Your task to perform on an android device: open app "ColorNote Notepad Notes" (install if not already installed), go to login, and select forgot password Image 0: 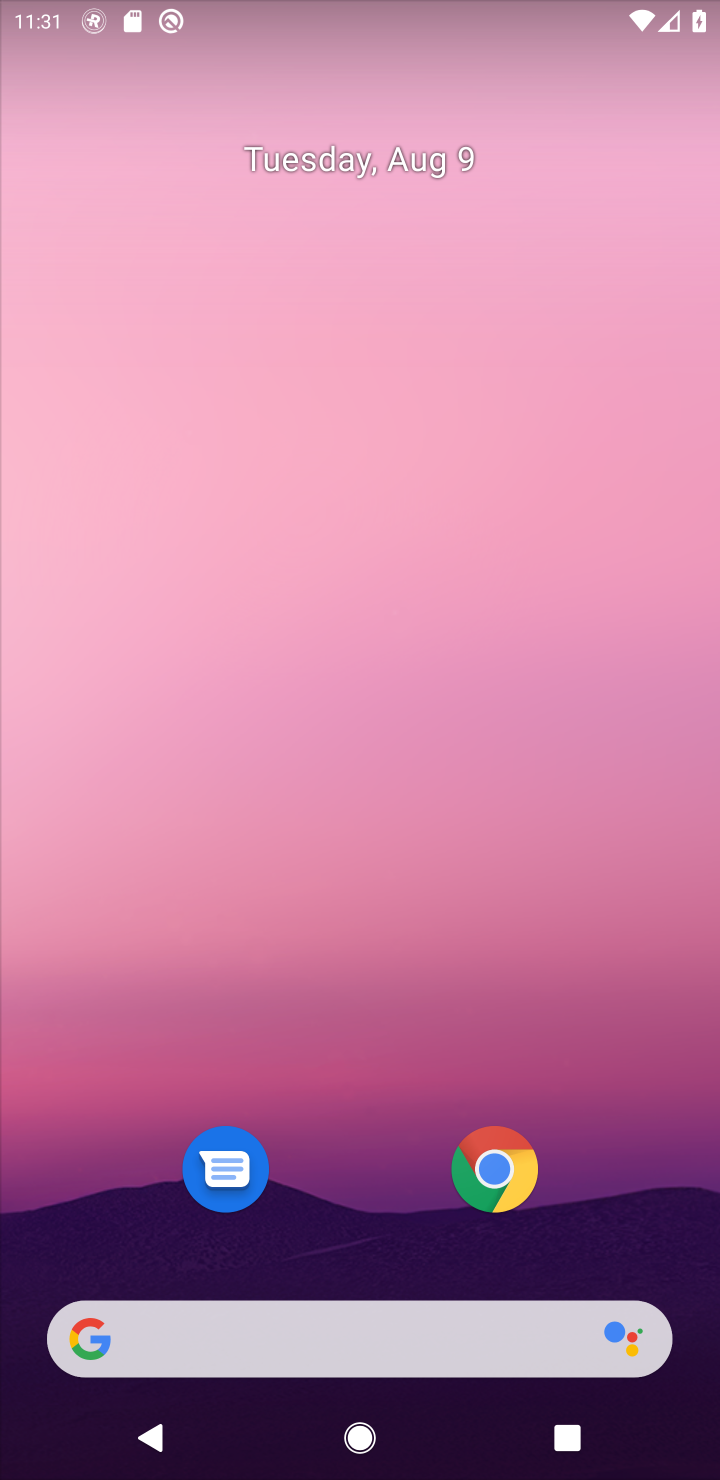
Step 0: press home button
Your task to perform on an android device: open app "ColorNote Notepad Notes" (install if not already installed), go to login, and select forgot password Image 1: 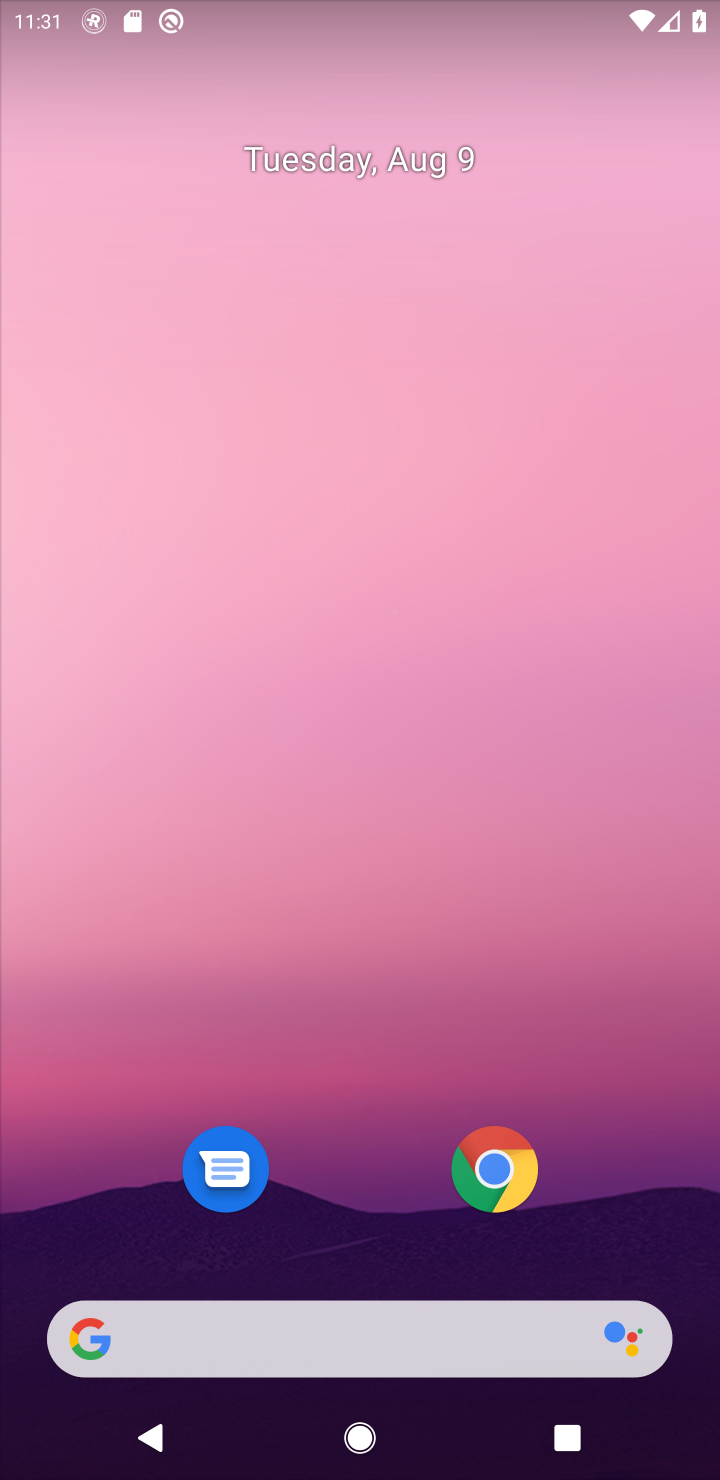
Step 1: press home button
Your task to perform on an android device: open app "ColorNote Notepad Notes" (install if not already installed), go to login, and select forgot password Image 2: 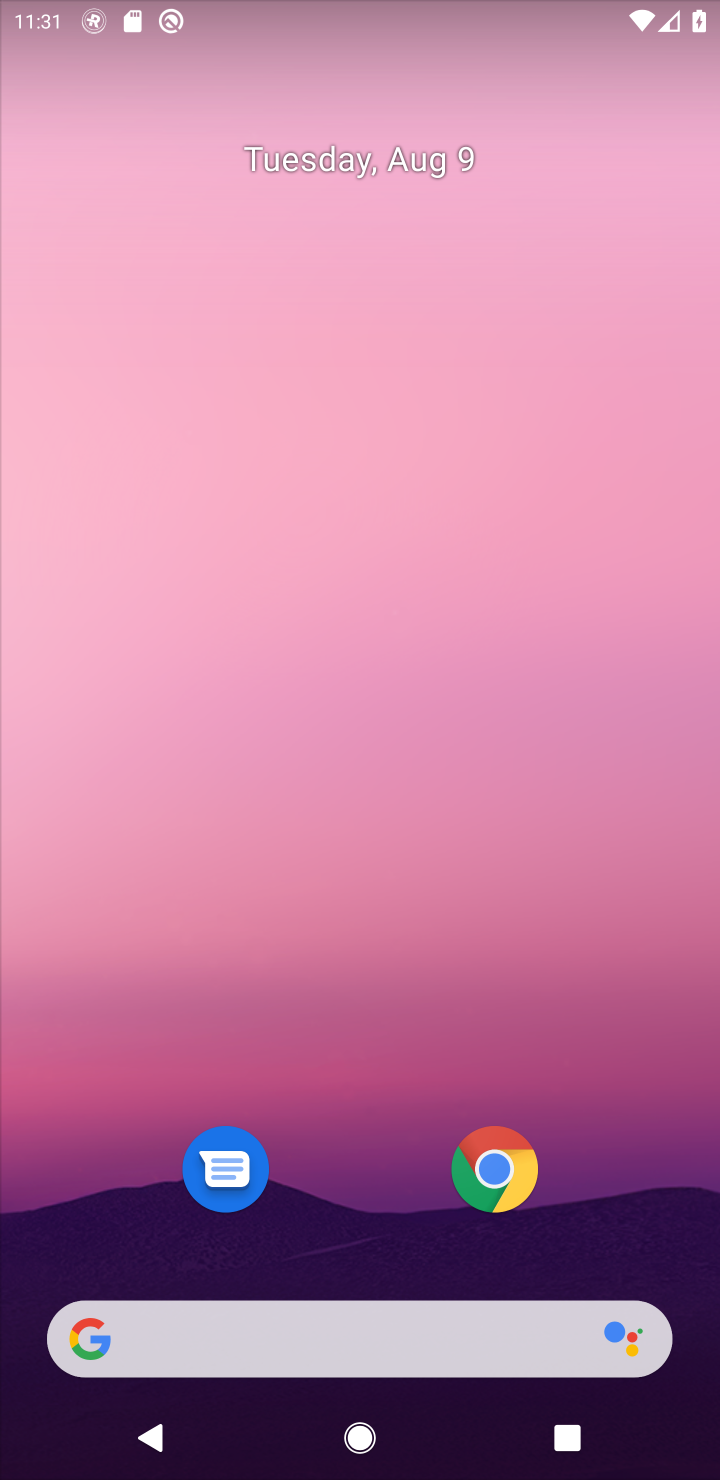
Step 2: drag from (602, 1192) to (623, 91)
Your task to perform on an android device: open app "ColorNote Notepad Notes" (install if not already installed), go to login, and select forgot password Image 3: 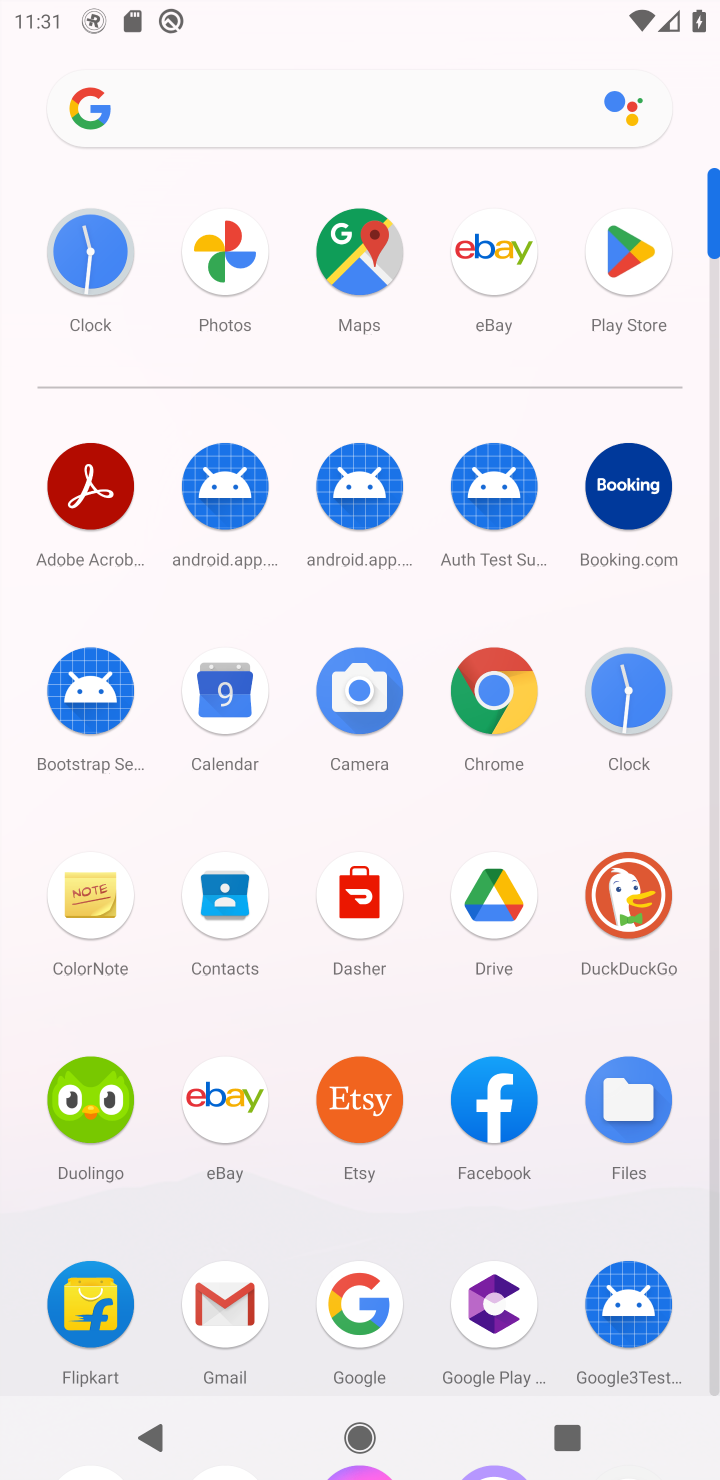
Step 3: click (624, 244)
Your task to perform on an android device: open app "ColorNote Notepad Notes" (install if not already installed), go to login, and select forgot password Image 4: 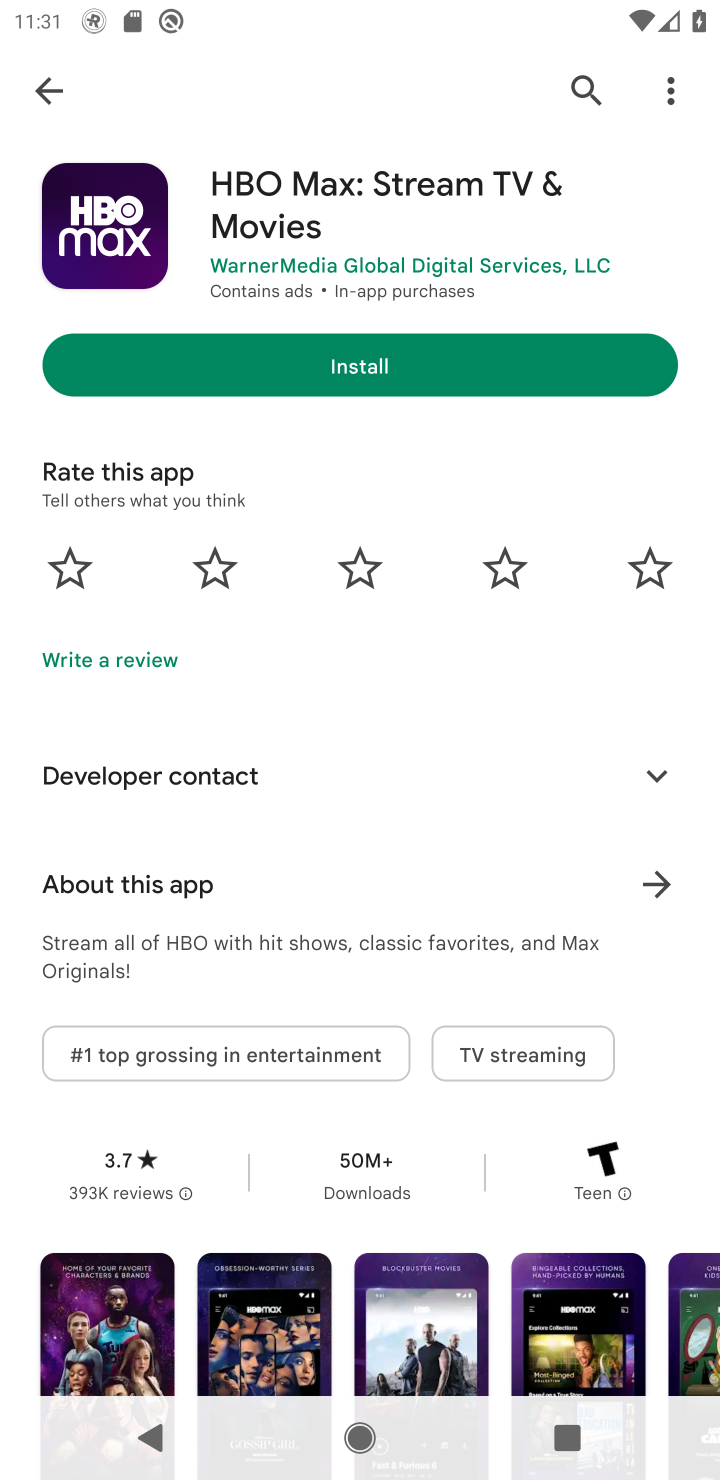
Step 4: click (577, 90)
Your task to perform on an android device: open app "ColorNote Notepad Notes" (install if not already installed), go to login, and select forgot password Image 5: 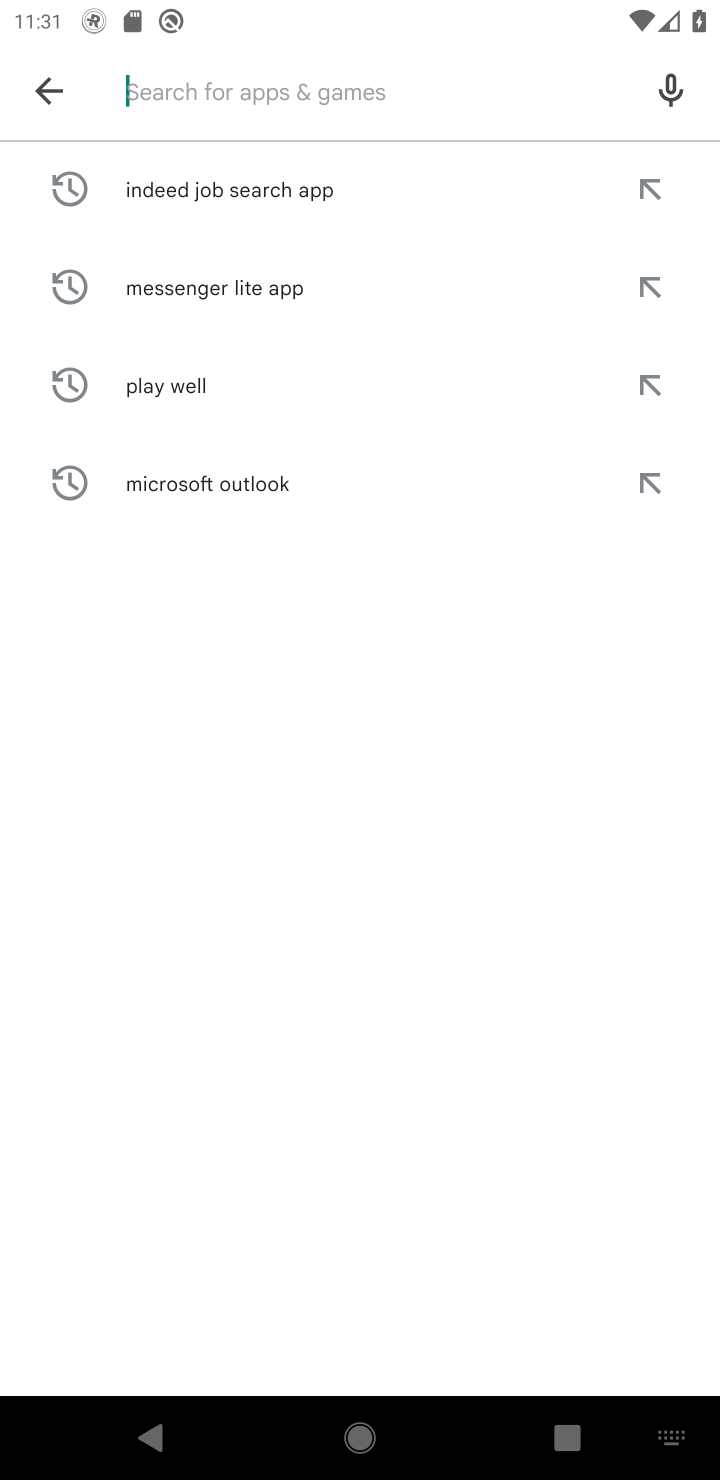
Step 5: type "ColorNote Notepad Notes"
Your task to perform on an android device: open app "ColorNote Notepad Notes" (install if not already installed), go to login, and select forgot password Image 6: 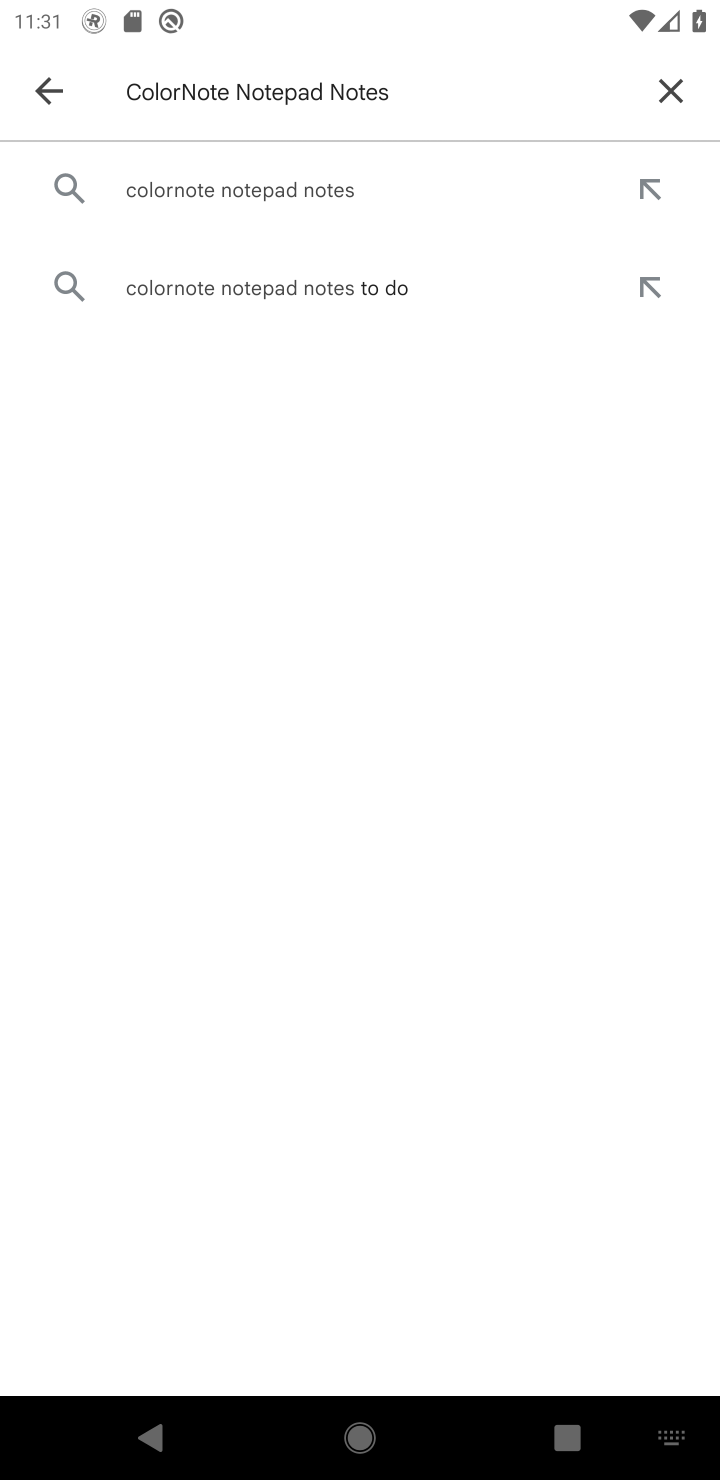
Step 6: click (318, 175)
Your task to perform on an android device: open app "ColorNote Notepad Notes" (install if not already installed), go to login, and select forgot password Image 7: 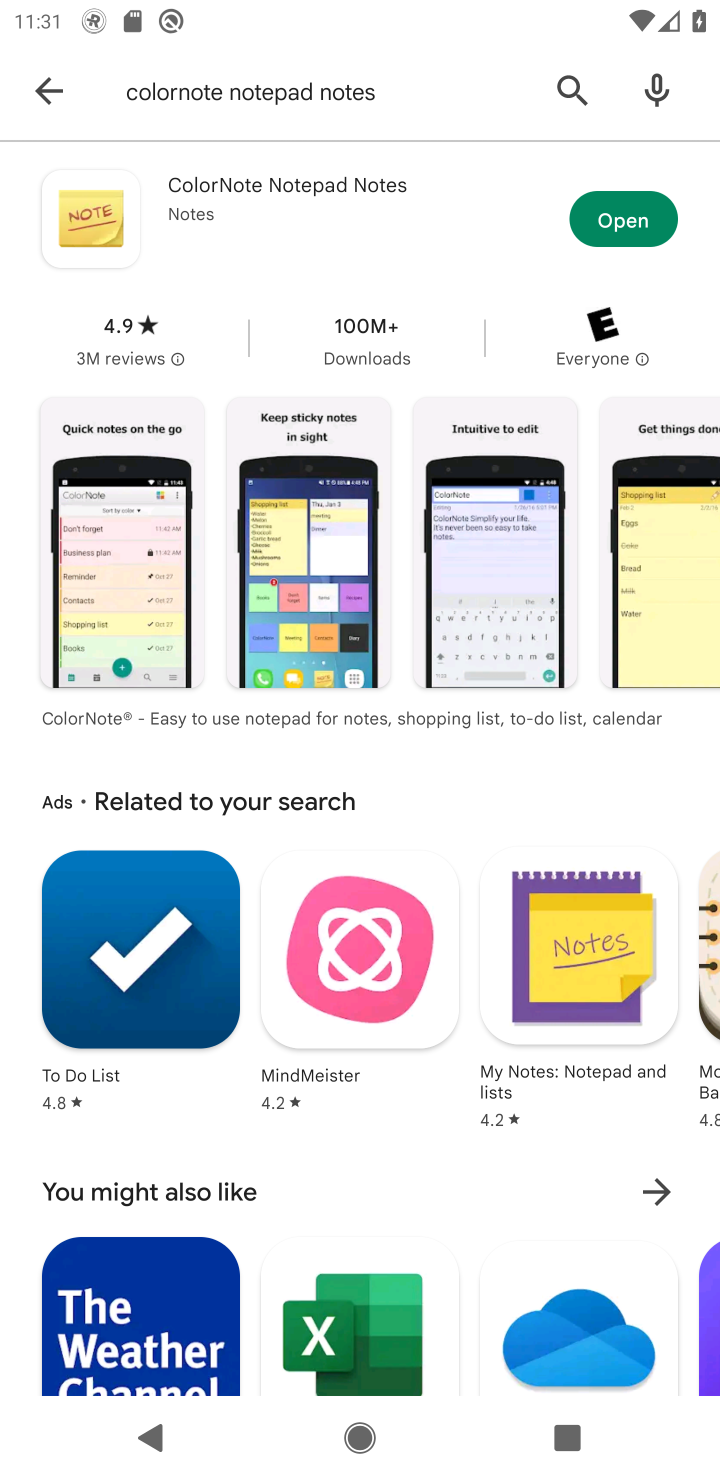
Step 7: click (630, 221)
Your task to perform on an android device: open app "ColorNote Notepad Notes" (install if not already installed), go to login, and select forgot password Image 8: 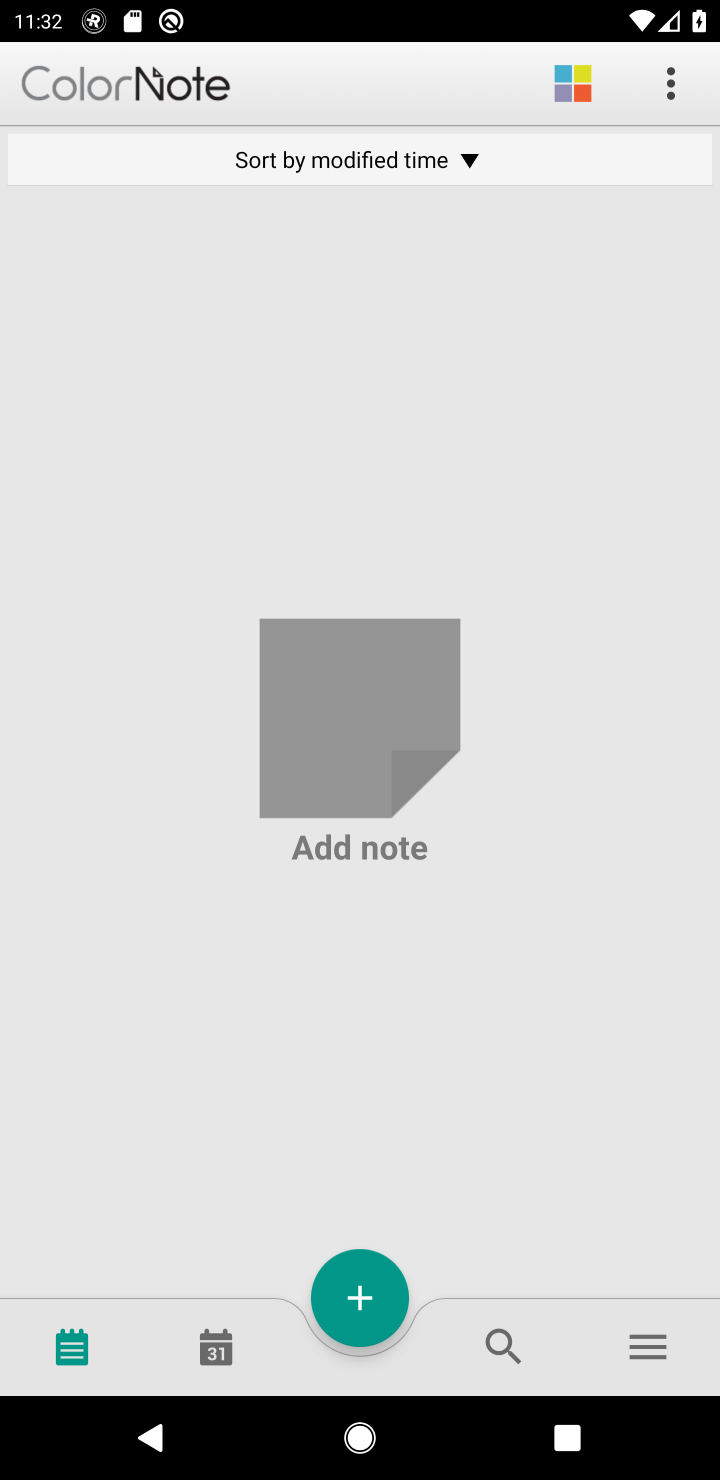
Step 8: click (671, 88)
Your task to perform on an android device: open app "ColorNote Notepad Notes" (install if not already installed), go to login, and select forgot password Image 9: 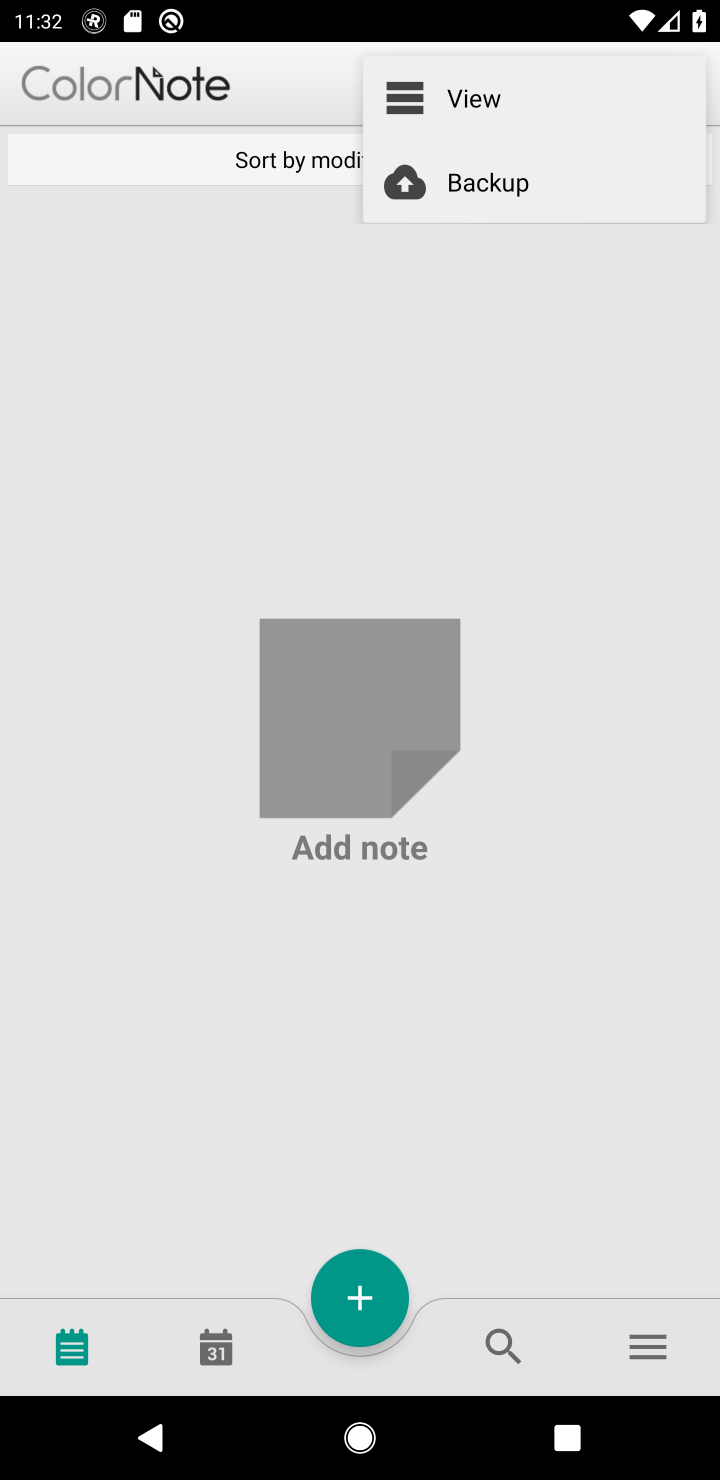
Step 9: click (563, 479)
Your task to perform on an android device: open app "ColorNote Notepad Notes" (install if not already installed), go to login, and select forgot password Image 10: 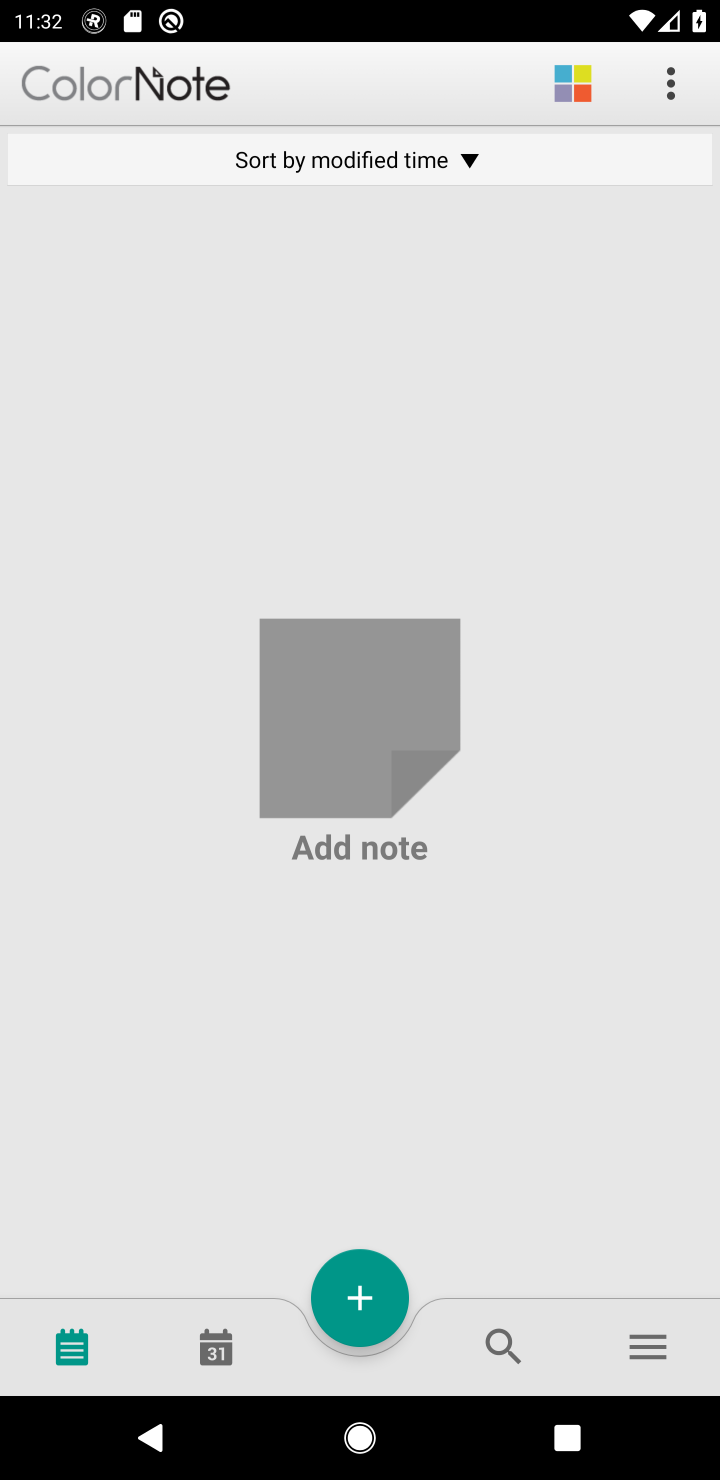
Step 10: click (657, 1358)
Your task to perform on an android device: open app "ColorNote Notepad Notes" (install if not already installed), go to login, and select forgot password Image 11: 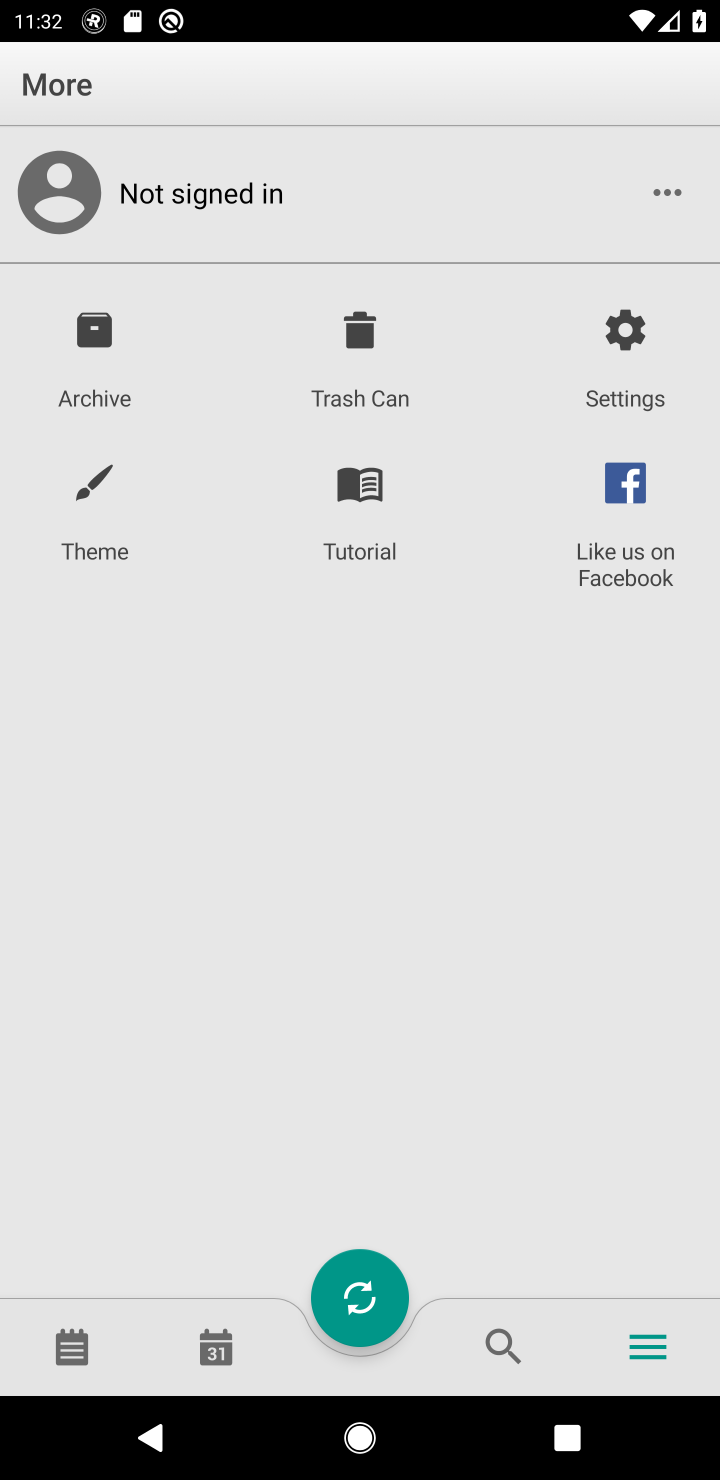
Step 11: click (673, 196)
Your task to perform on an android device: open app "ColorNote Notepad Notes" (install if not already installed), go to login, and select forgot password Image 12: 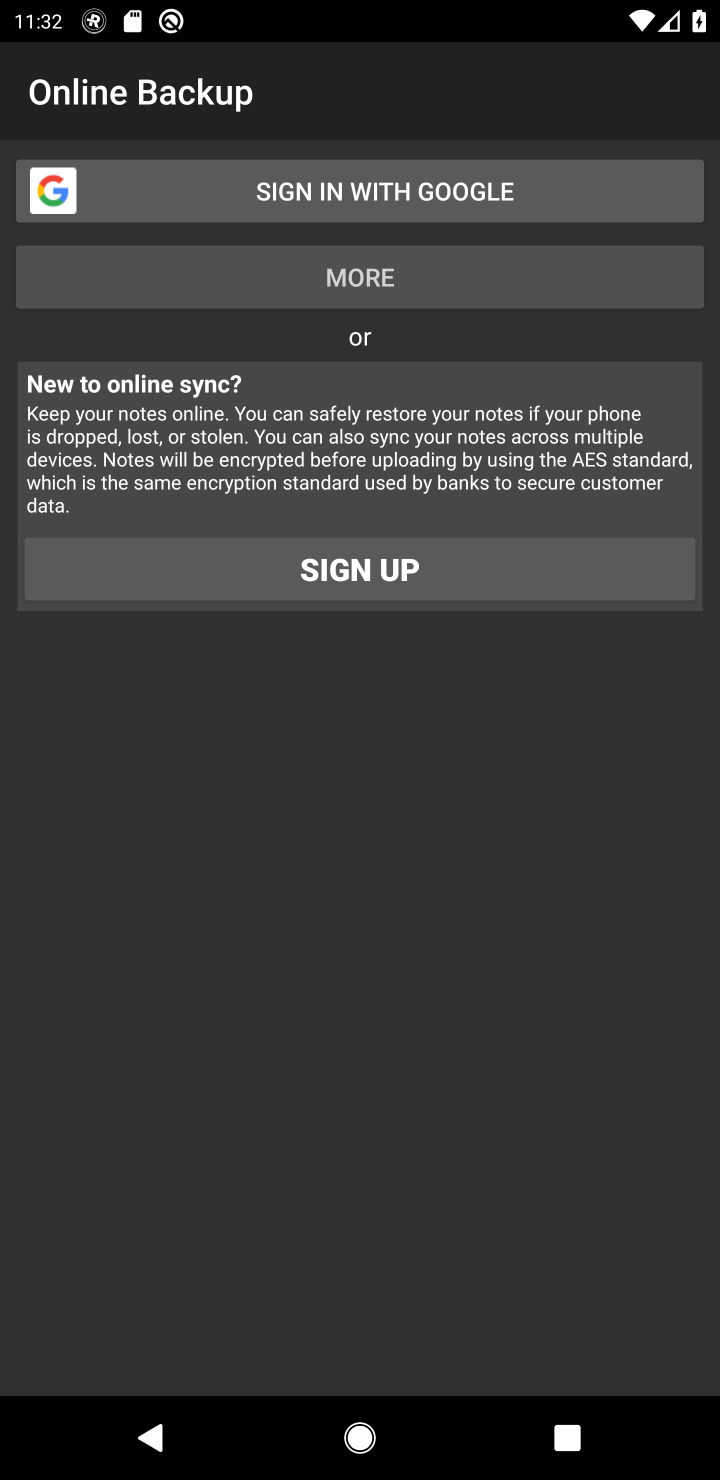
Step 12: click (409, 196)
Your task to perform on an android device: open app "ColorNote Notepad Notes" (install if not already installed), go to login, and select forgot password Image 13: 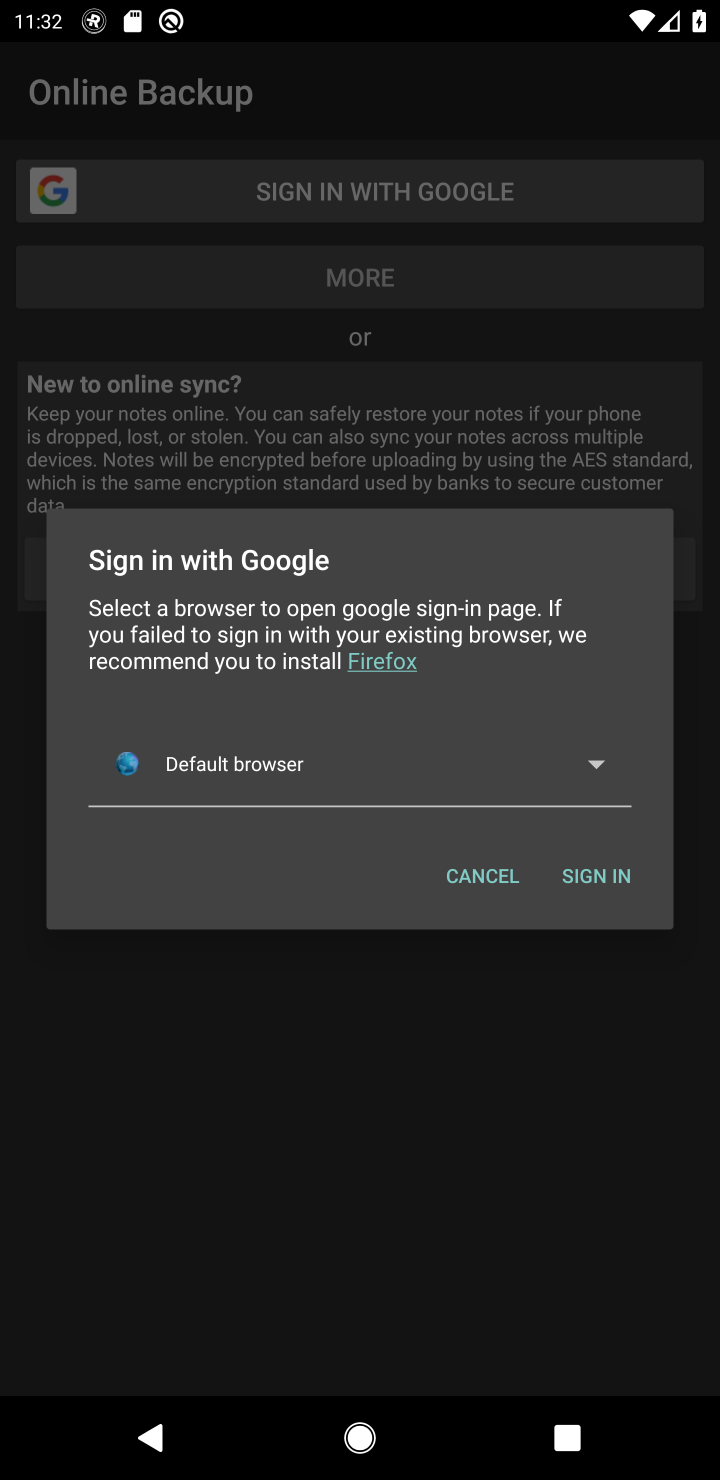
Step 13: click (607, 864)
Your task to perform on an android device: open app "ColorNote Notepad Notes" (install if not already installed), go to login, and select forgot password Image 14: 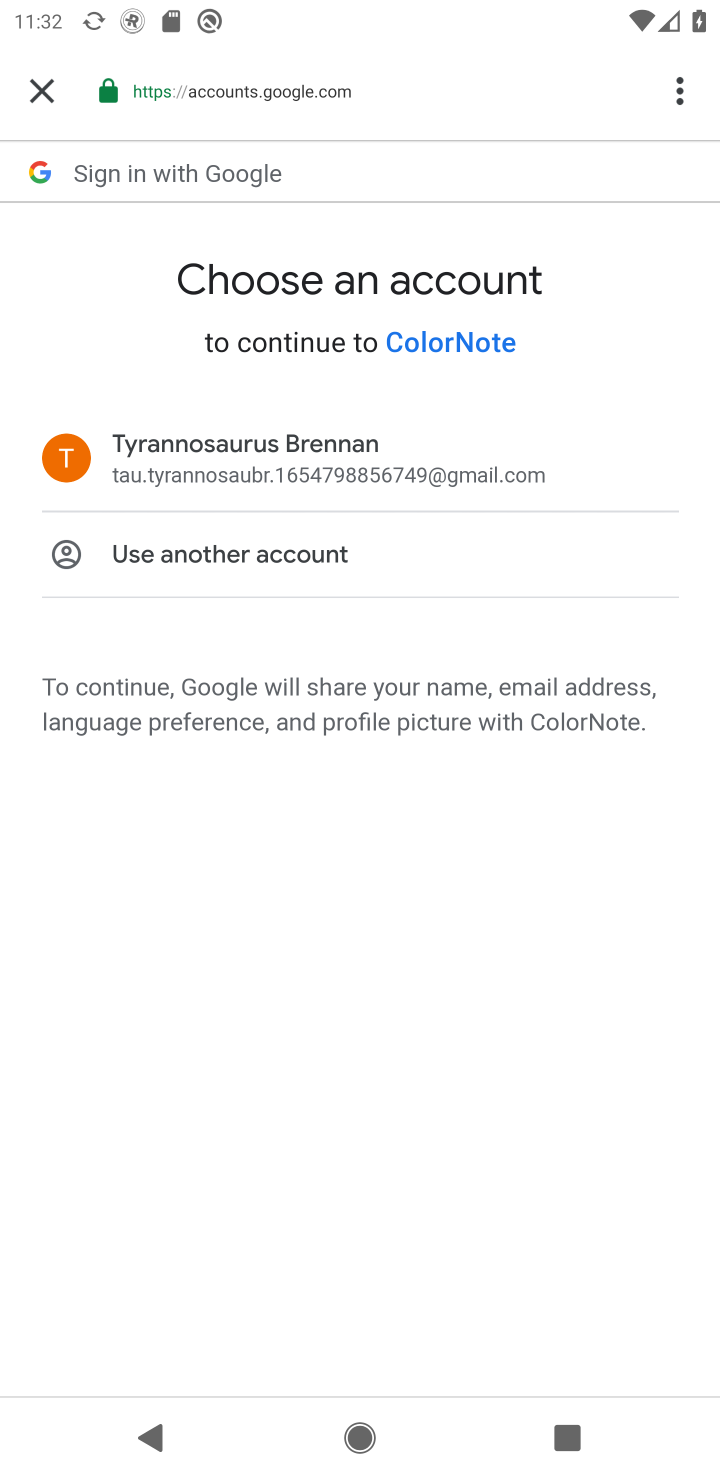
Step 14: click (405, 542)
Your task to perform on an android device: open app "ColorNote Notepad Notes" (install if not already installed), go to login, and select forgot password Image 15: 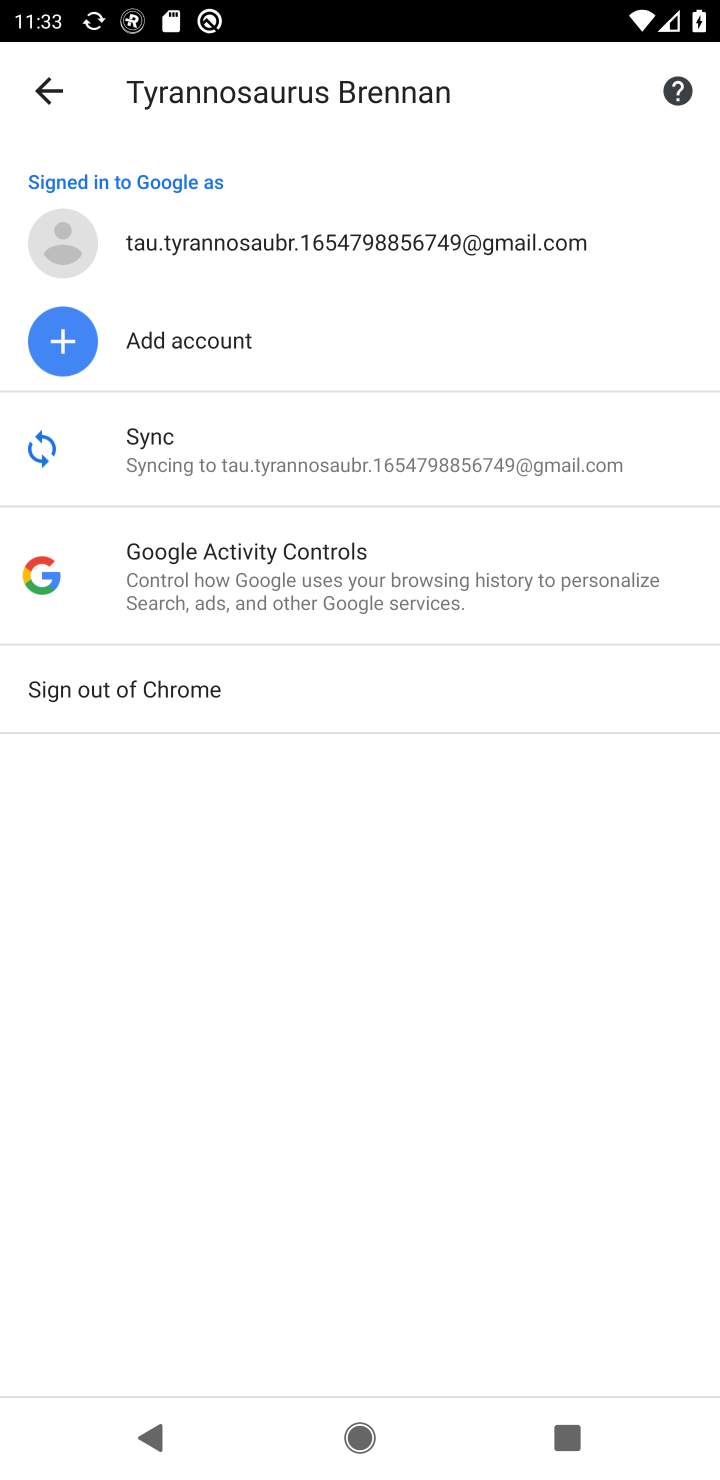
Step 15: click (190, 340)
Your task to perform on an android device: open app "ColorNote Notepad Notes" (install if not already installed), go to login, and select forgot password Image 16: 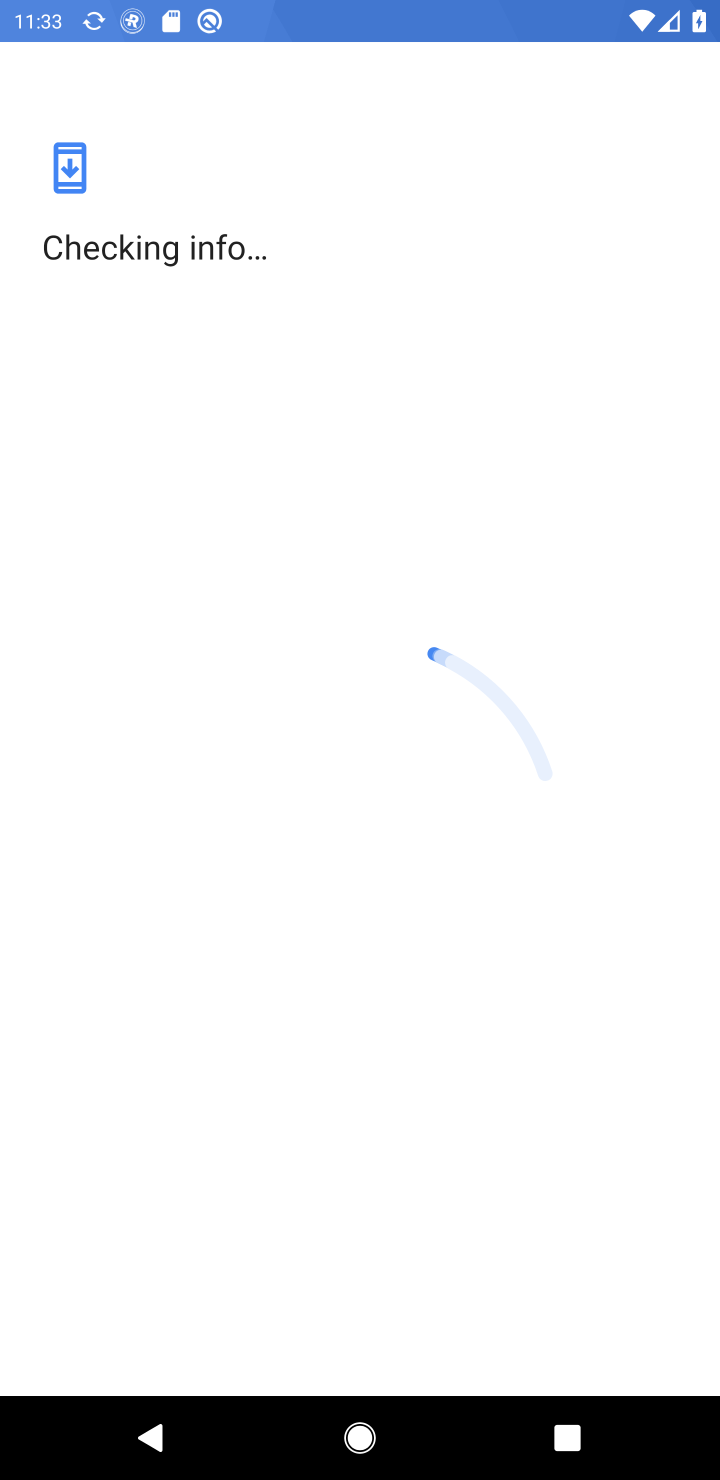
Step 16: task complete